Your task to perform on an android device: turn off location history Image 0: 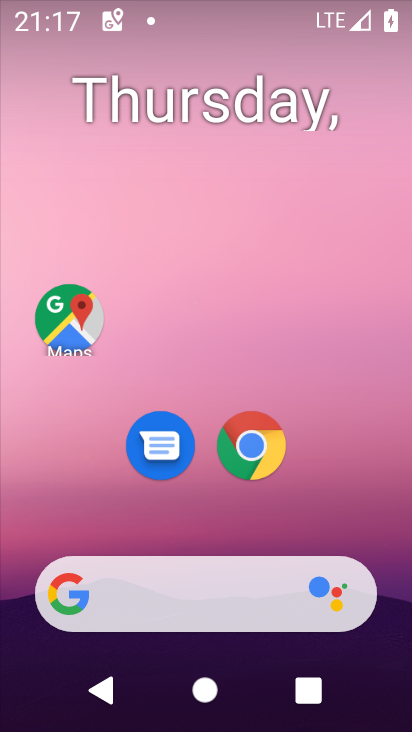
Step 0: drag from (229, 518) to (232, 112)
Your task to perform on an android device: turn off location history Image 1: 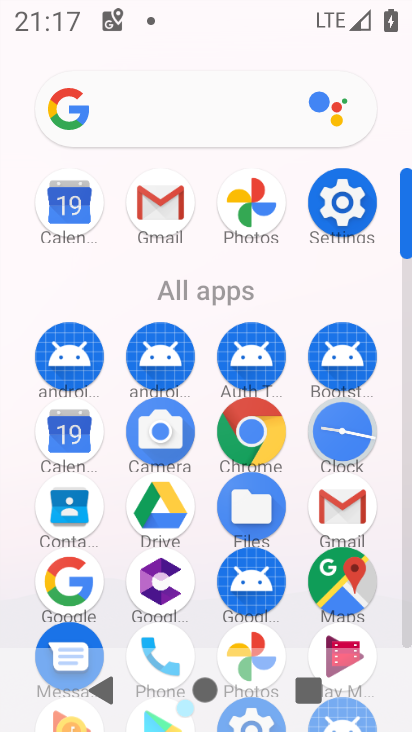
Step 1: click (362, 203)
Your task to perform on an android device: turn off location history Image 2: 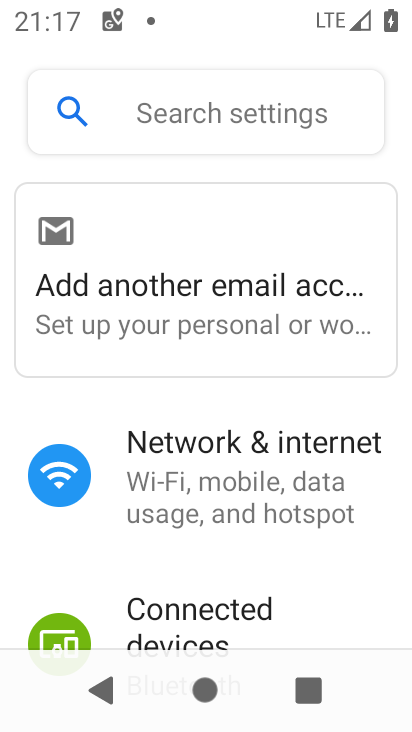
Step 2: drag from (244, 487) to (320, 127)
Your task to perform on an android device: turn off location history Image 3: 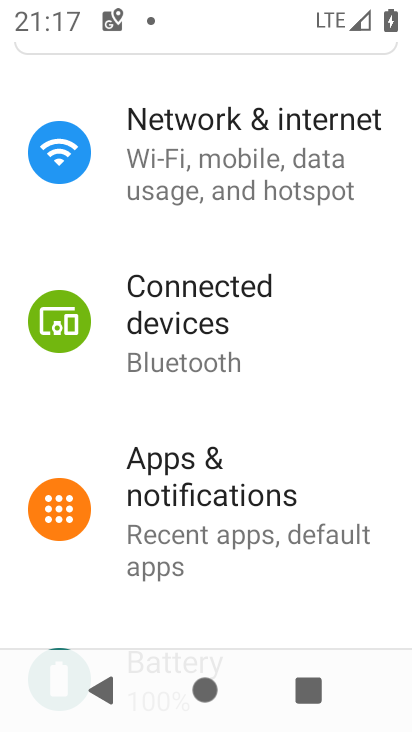
Step 3: drag from (216, 534) to (369, 132)
Your task to perform on an android device: turn off location history Image 4: 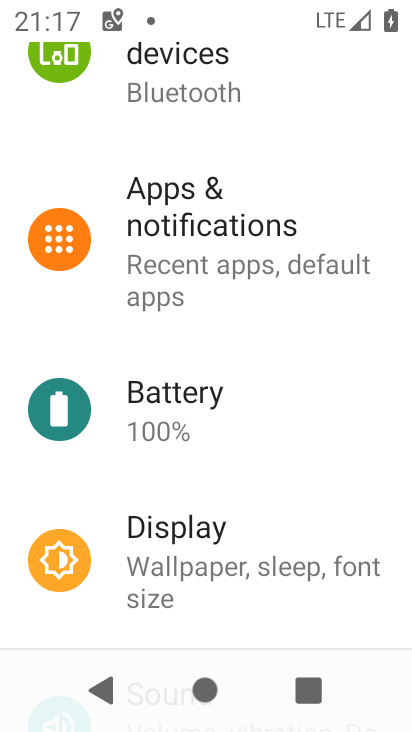
Step 4: drag from (263, 575) to (298, 196)
Your task to perform on an android device: turn off location history Image 5: 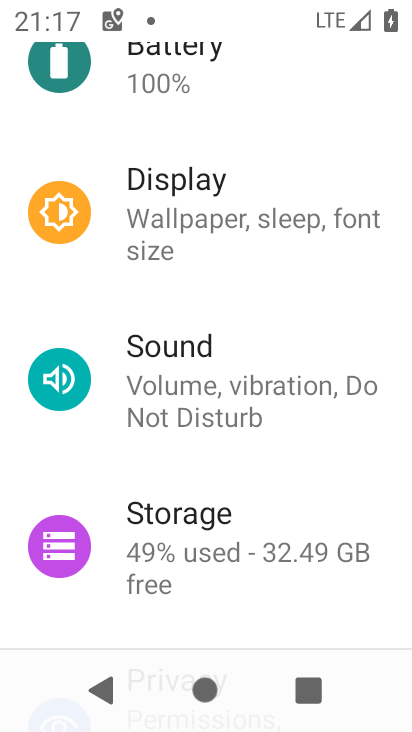
Step 5: drag from (221, 535) to (232, 239)
Your task to perform on an android device: turn off location history Image 6: 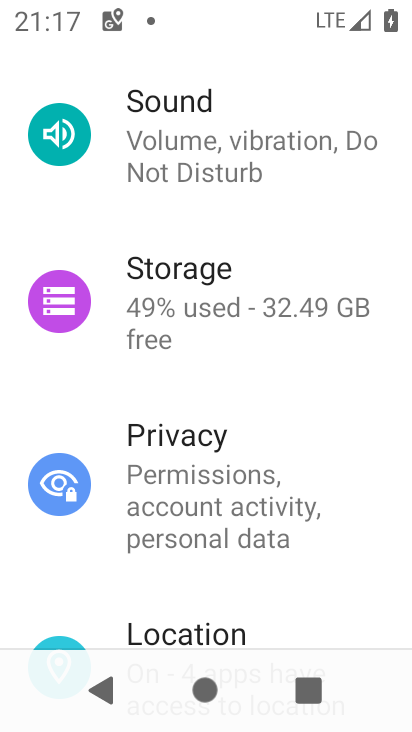
Step 6: click (242, 627)
Your task to perform on an android device: turn off location history Image 7: 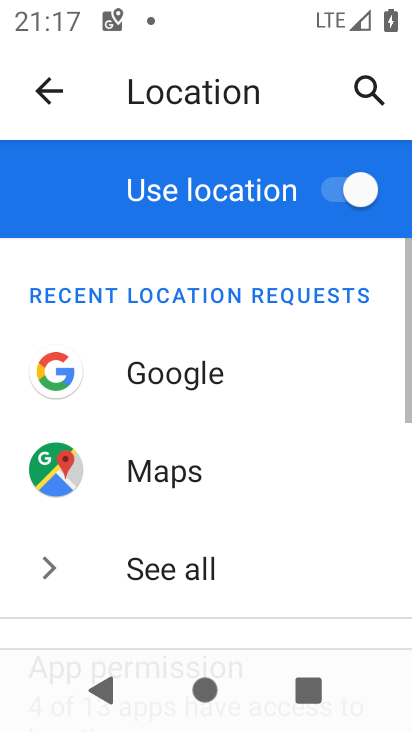
Step 7: drag from (220, 595) to (290, 110)
Your task to perform on an android device: turn off location history Image 8: 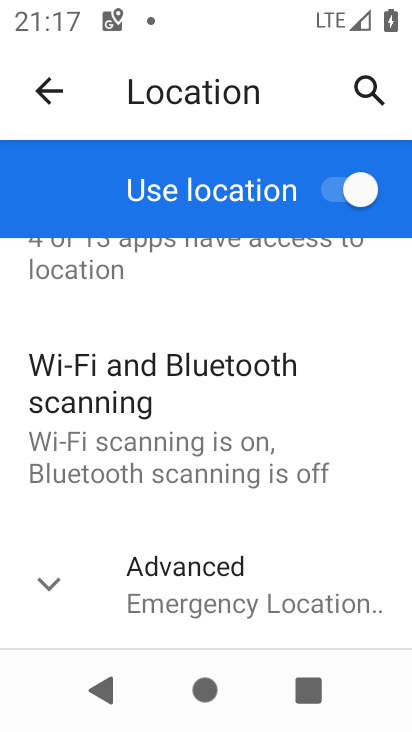
Step 8: drag from (231, 325) to (285, 677)
Your task to perform on an android device: turn off location history Image 9: 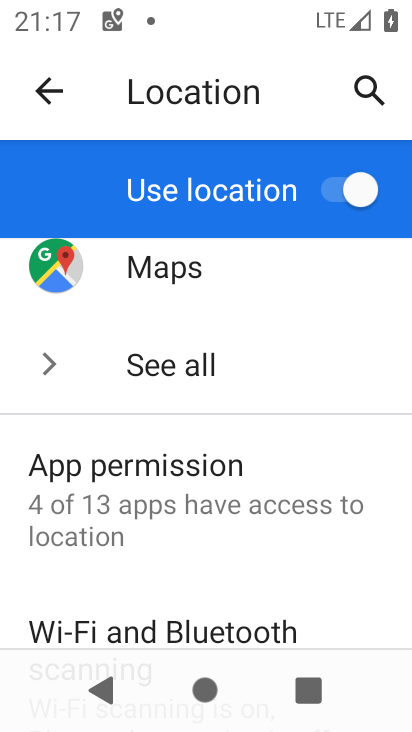
Step 9: drag from (243, 584) to (289, 273)
Your task to perform on an android device: turn off location history Image 10: 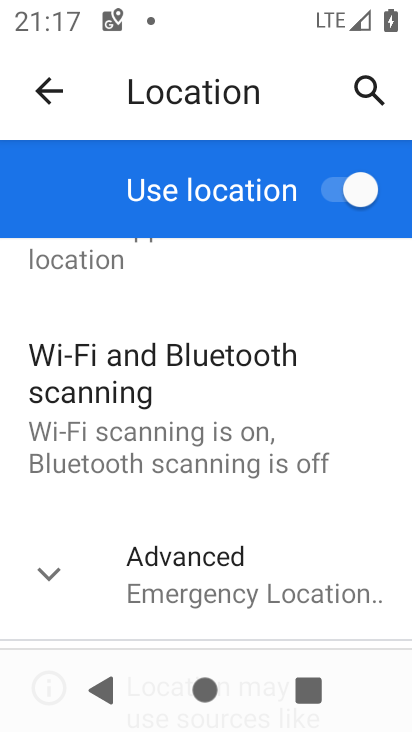
Step 10: click (208, 616)
Your task to perform on an android device: turn off location history Image 11: 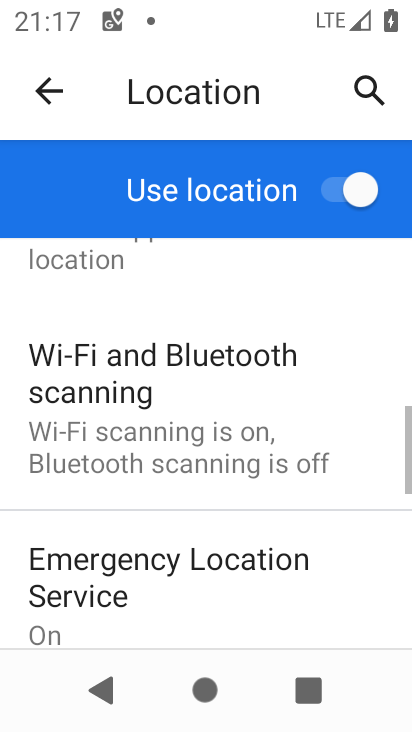
Step 11: drag from (207, 591) to (320, 129)
Your task to perform on an android device: turn off location history Image 12: 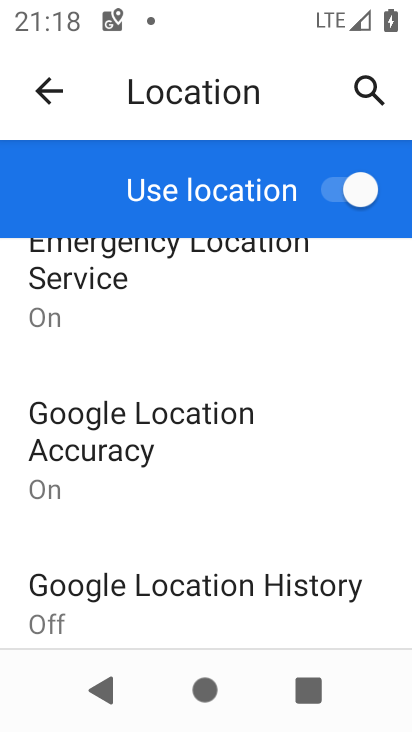
Step 12: click (208, 622)
Your task to perform on an android device: turn off location history Image 13: 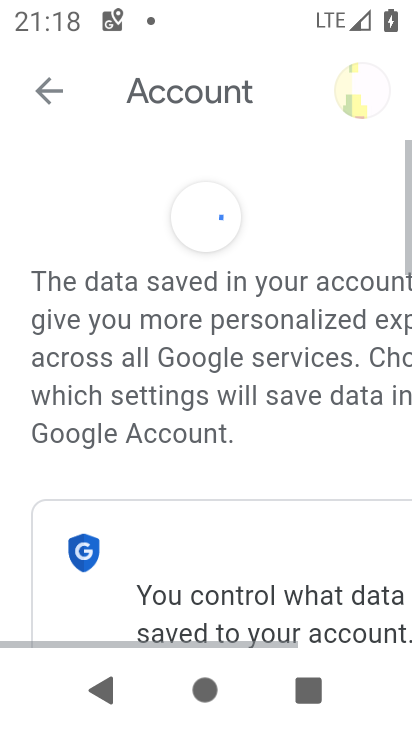
Step 13: task complete